Your task to perform on an android device: allow cookies in the chrome app Image 0: 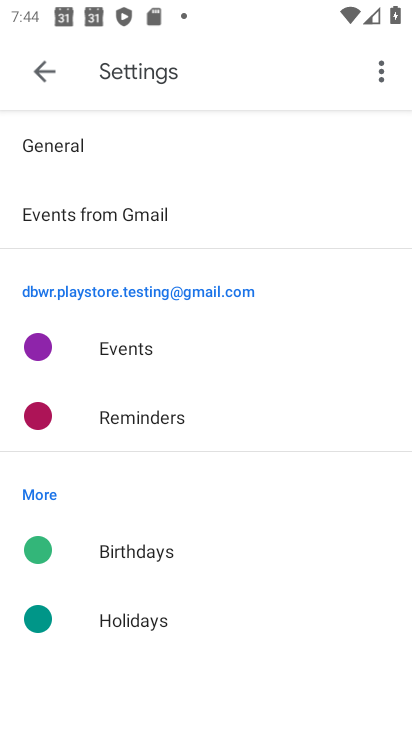
Step 0: press home button
Your task to perform on an android device: allow cookies in the chrome app Image 1: 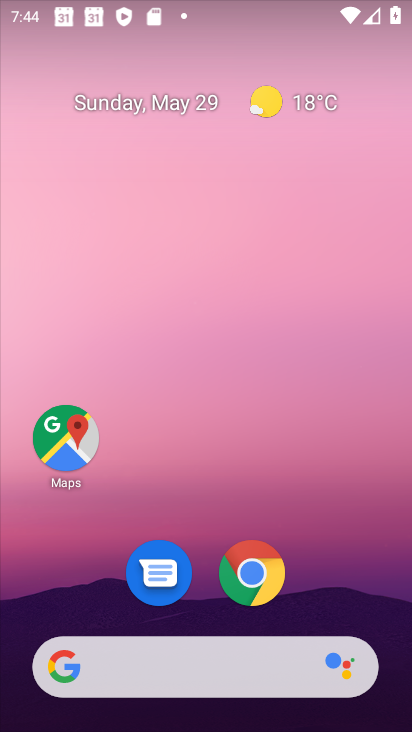
Step 1: click (261, 588)
Your task to perform on an android device: allow cookies in the chrome app Image 2: 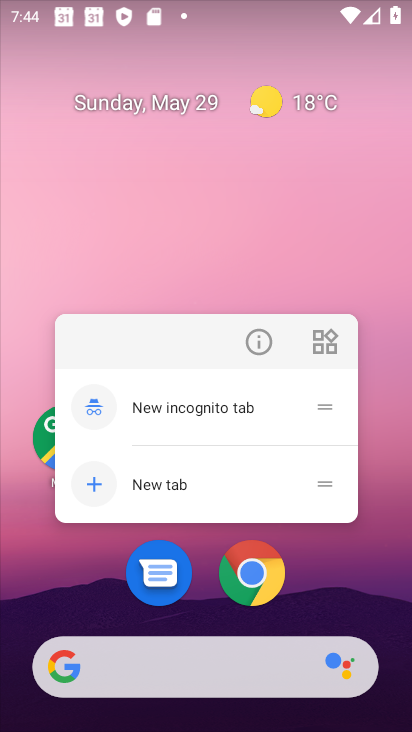
Step 2: click (262, 585)
Your task to perform on an android device: allow cookies in the chrome app Image 3: 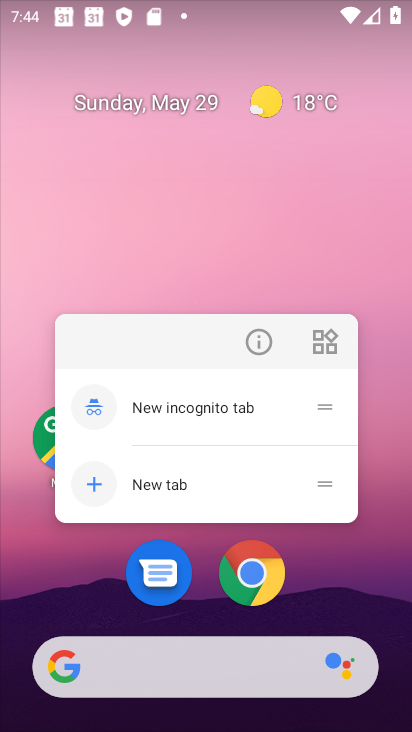
Step 3: click (248, 558)
Your task to perform on an android device: allow cookies in the chrome app Image 4: 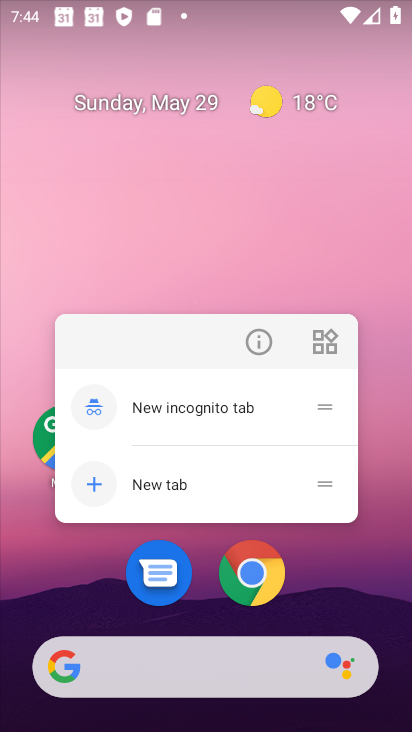
Step 4: click (263, 579)
Your task to perform on an android device: allow cookies in the chrome app Image 5: 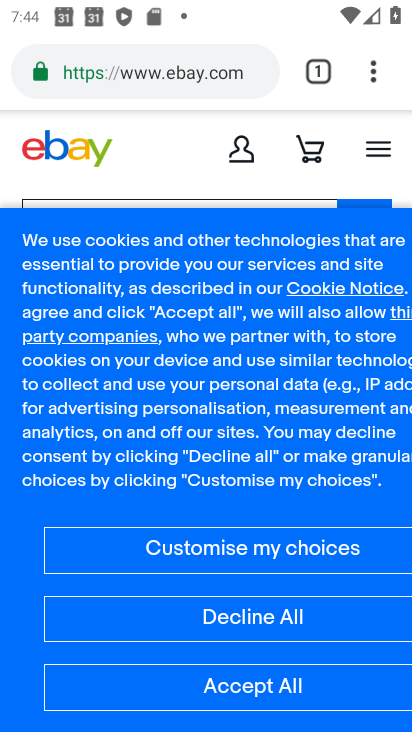
Step 5: drag from (386, 79) to (276, 574)
Your task to perform on an android device: allow cookies in the chrome app Image 6: 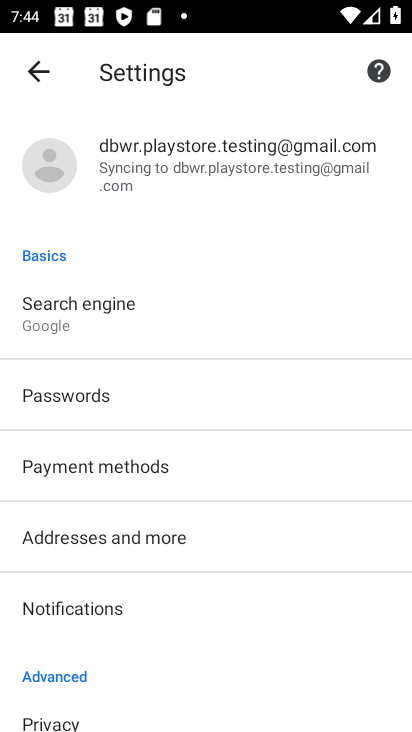
Step 6: drag from (181, 659) to (294, 319)
Your task to perform on an android device: allow cookies in the chrome app Image 7: 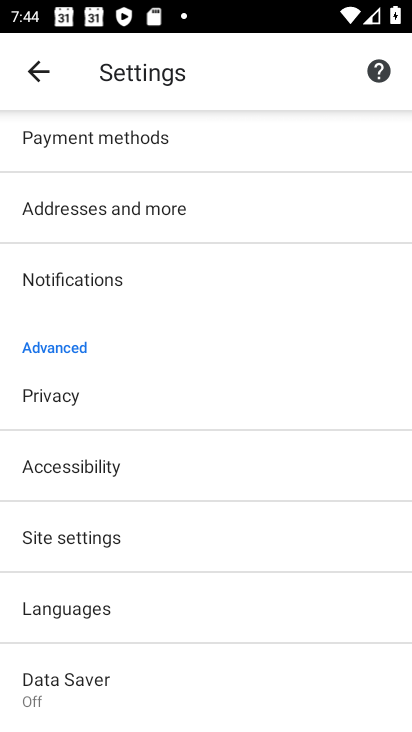
Step 7: click (110, 531)
Your task to perform on an android device: allow cookies in the chrome app Image 8: 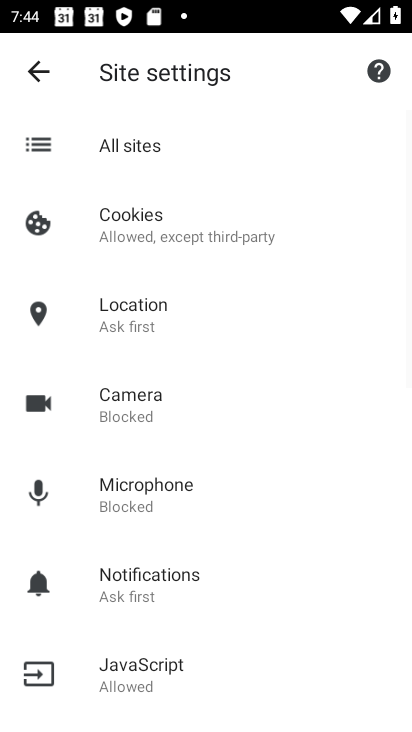
Step 8: click (225, 240)
Your task to perform on an android device: allow cookies in the chrome app Image 9: 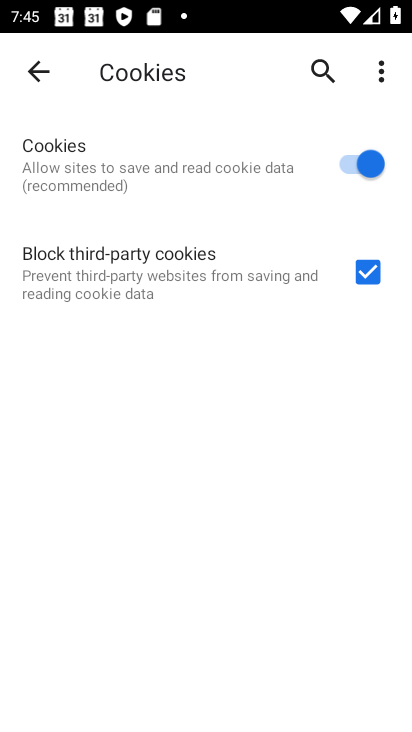
Step 9: task complete